Your task to perform on an android device: turn off sleep mode Image 0: 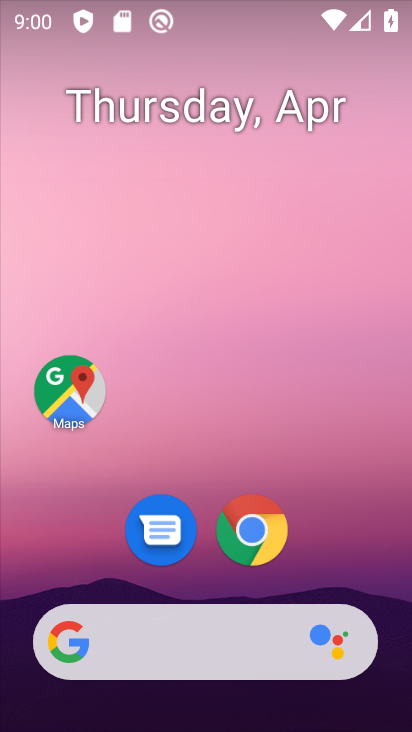
Step 0: drag from (319, 551) to (322, 95)
Your task to perform on an android device: turn off sleep mode Image 1: 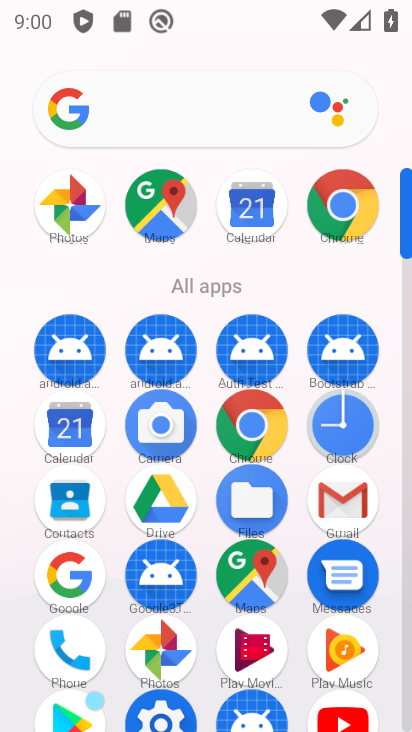
Step 1: drag from (300, 297) to (298, 31)
Your task to perform on an android device: turn off sleep mode Image 2: 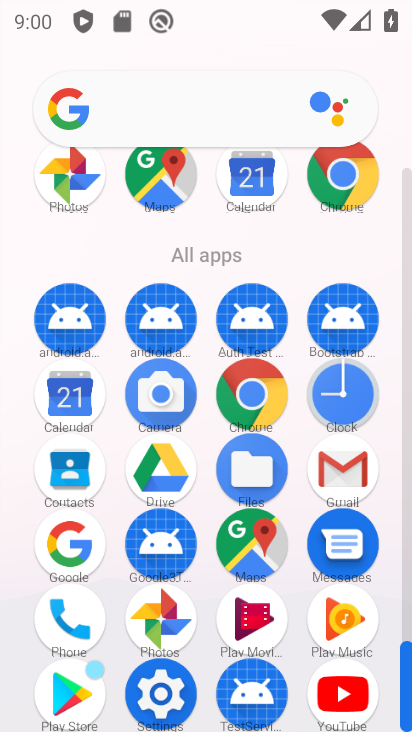
Step 2: click (162, 693)
Your task to perform on an android device: turn off sleep mode Image 3: 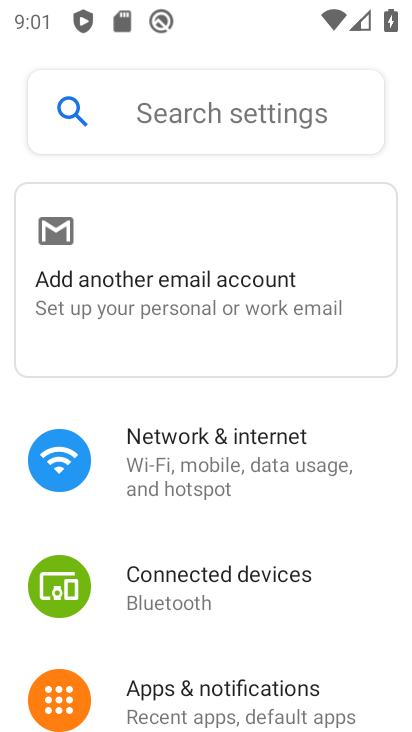
Step 3: drag from (386, 687) to (382, 274)
Your task to perform on an android device: turn off sleep mode Image 4: 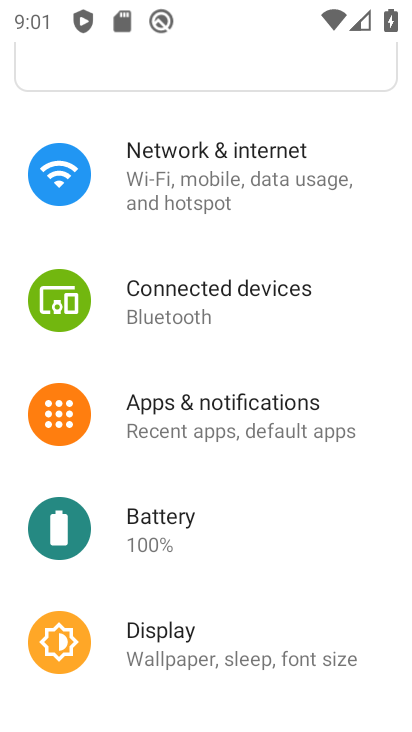
Step 4: click (166, 639)
Your task to perform on an android device: turn off sleep mode Image 5: 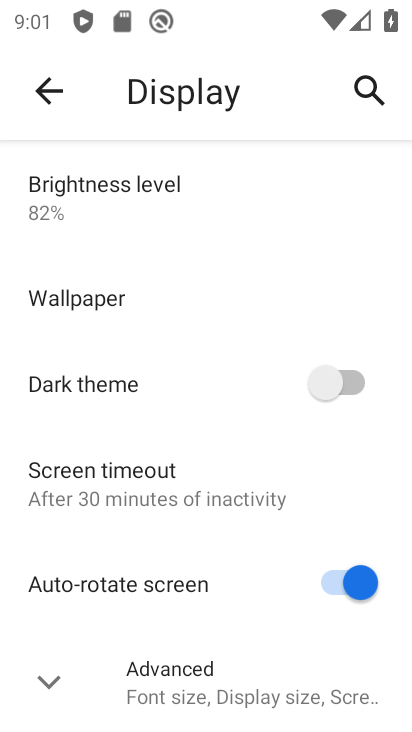
Step 5: task complete